Your task to perform on an android device: Open calendar and show me the fourth week of next month Image 0: 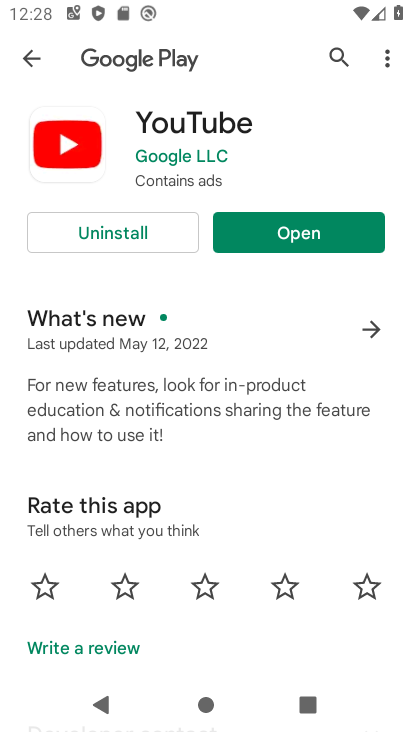
Step 0: press home button
Your task to perform on an android device: Open calendar and show me the fourth week of next month Image 1: 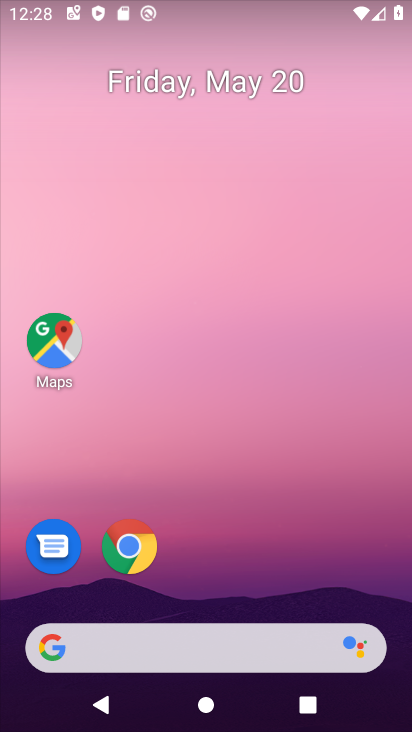
Step 1: drag from (224, 528) to (217, 114)
Your task to perform on an android device: Open calendar and show me the fourth week of next month Image 2: 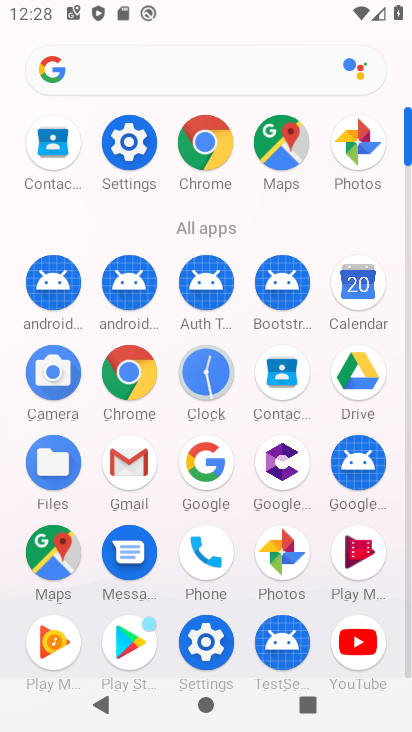
Step 2: click (358, 283)
Your task to perform on an android device: Open calendar and show me the fourth week of next month Image 3: 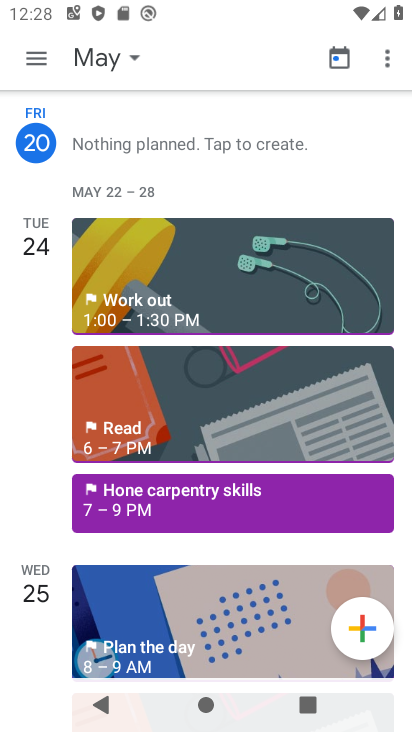
Step 3: click (42, 59)
Your task to perform on an android device: Open calendar and show me the fourth week of next month Image 4: 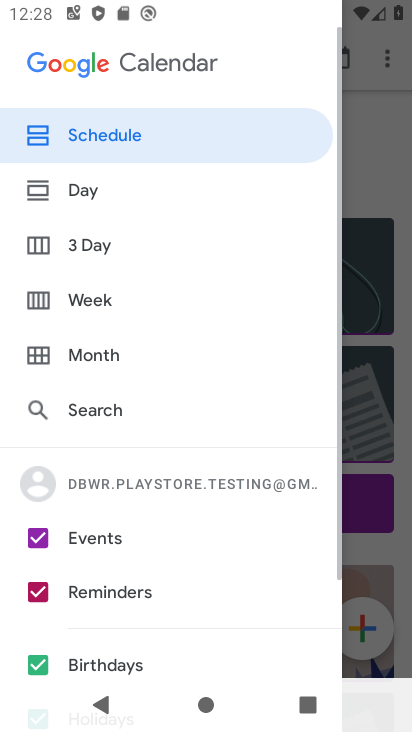
Step 4: click (35, 349)
Your task to perform on an android device: Open calendar and show me the fourth week of next month Image 5: 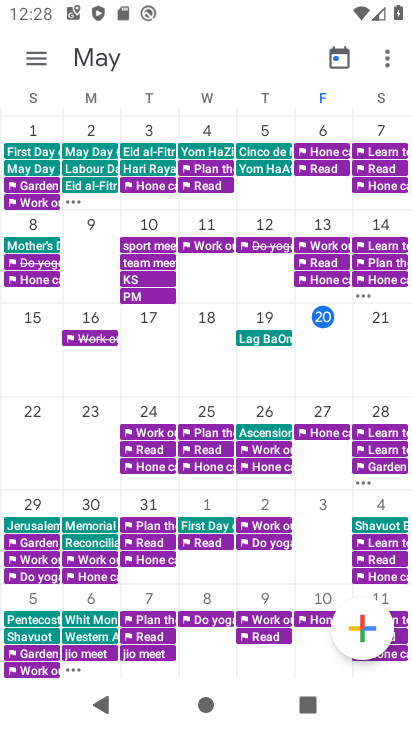
Step 5: drag from (357, 372) to (10, 369)
Your task to perform on an android device: Open calendar and show me the fourth week of next month Image 6: 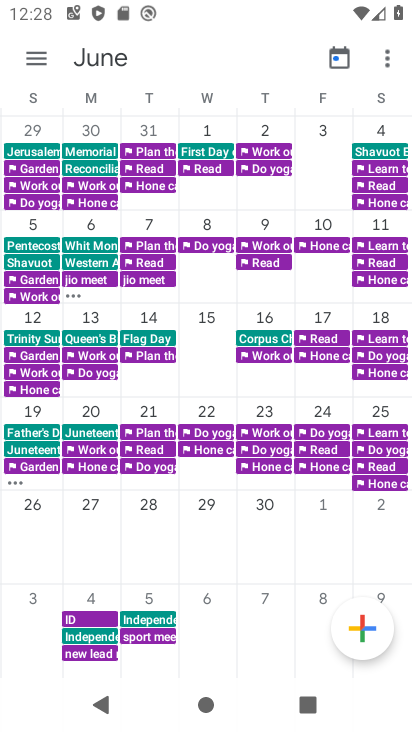
Step 6: click (38, 504)
Your task to perform on an android device: Open calendar and show me the fourth week of next month Image 7: 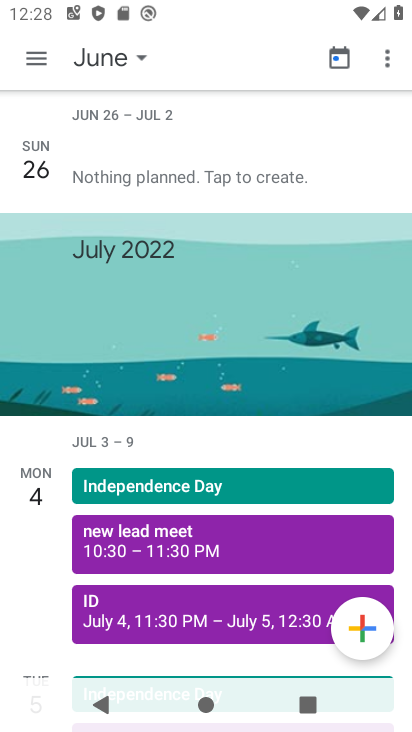
Step 7: click (40, 50)
Your task to perform on an android device: Open calendar and show me the fourth week of next month Image 8: 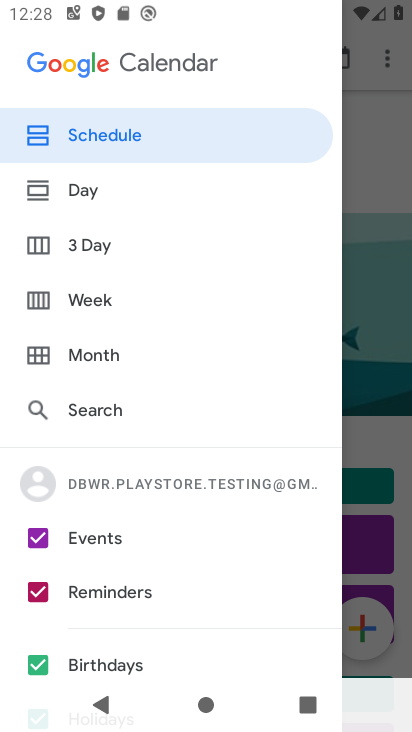
Step 8: click (41, 296)
Your task to perform on an android device: Open calendar and show me the fourth week of next month Image 9: 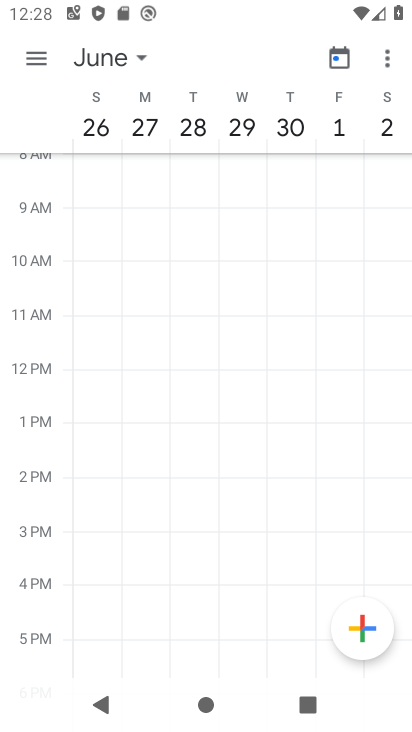
Step 9: task complete